Your task to perform on an android device: What's the weather today? Image 0: 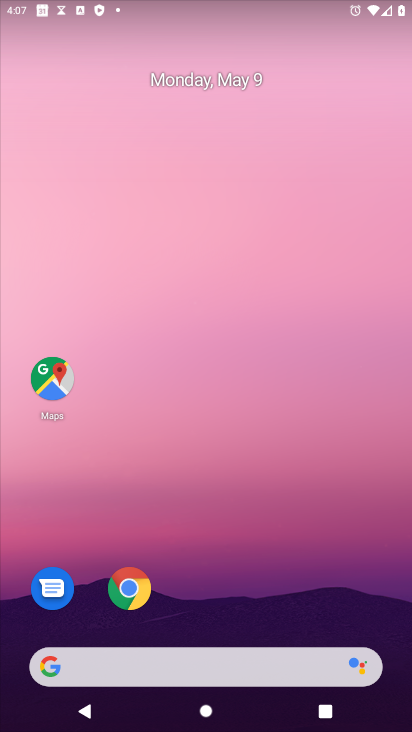
Step 0: drag from (227, 576) to (160, 147)
Your task to perform on an android device: What's the weather today? Image 1: 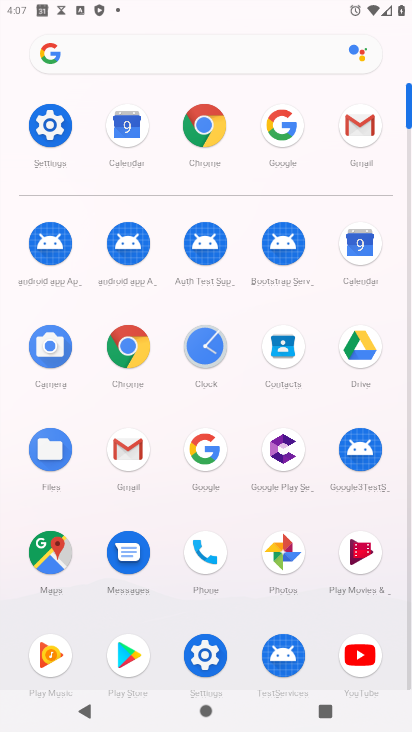
Step 1: click (198, 464)
Your task to perform on an android device: What's the weather today? Image 2: 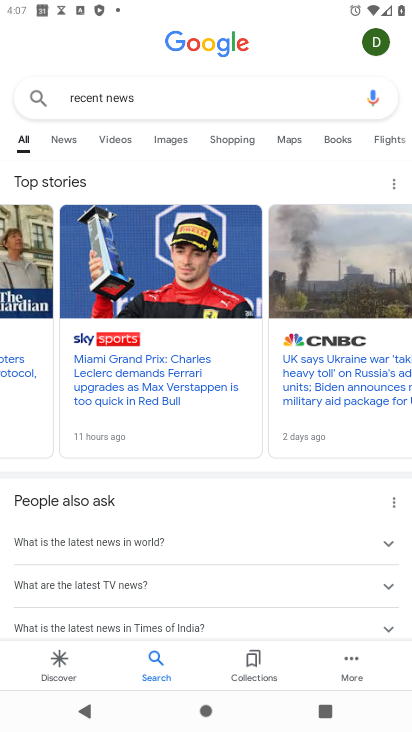
Step 2: click (159, 94)
Your task to perform on an android device: What's the weather today? Image 3: 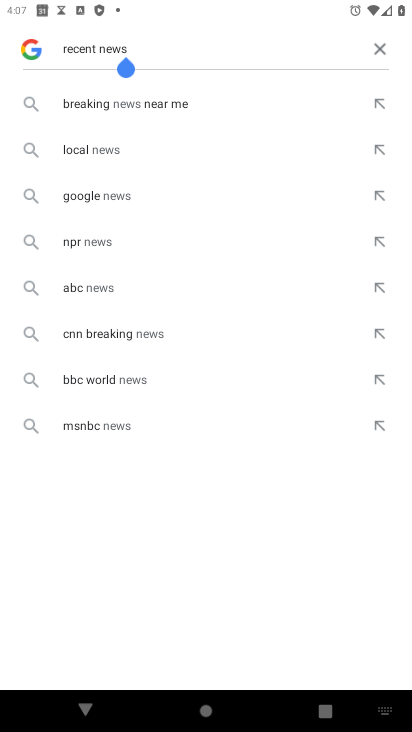
Step 3: click (378, 39)
Your task to perform on an android device: What's the weather today? Image 4: 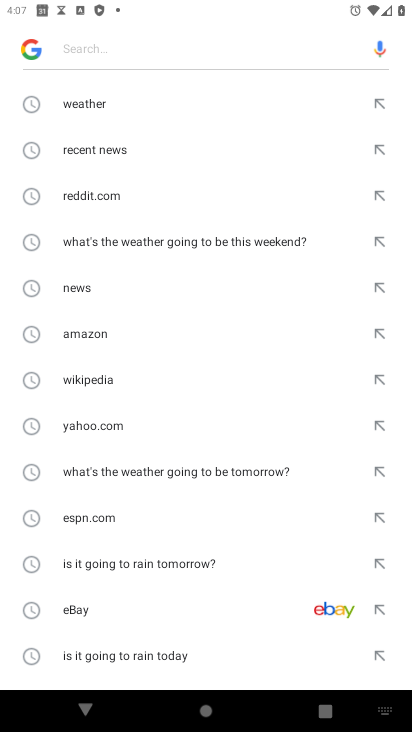
Step 4: click (175, 100)
Your task to perform on an android device: What's the weather today? Image 5: 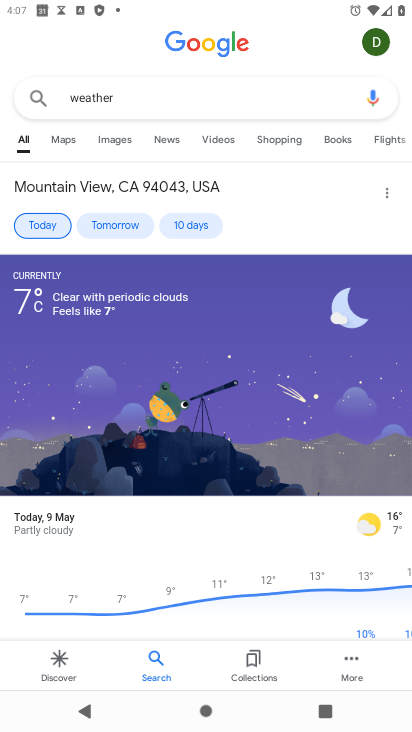
Step 5: task complete